Your task to perform on an android device: Who is the president of France? Image 0: 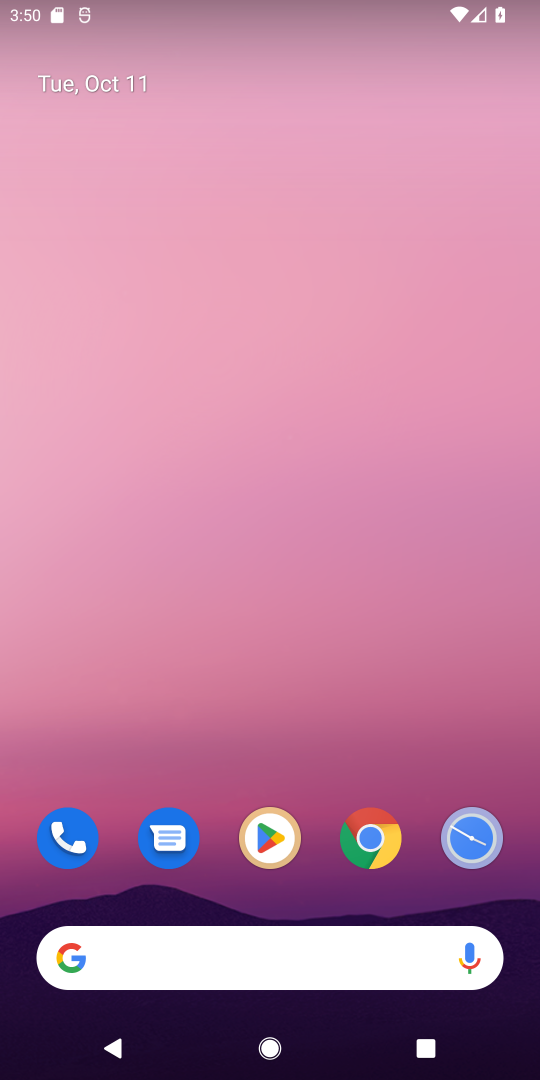
Step 0: click (370, 828)
Your task to perform on an android device: Who is the president of France? Image 1: 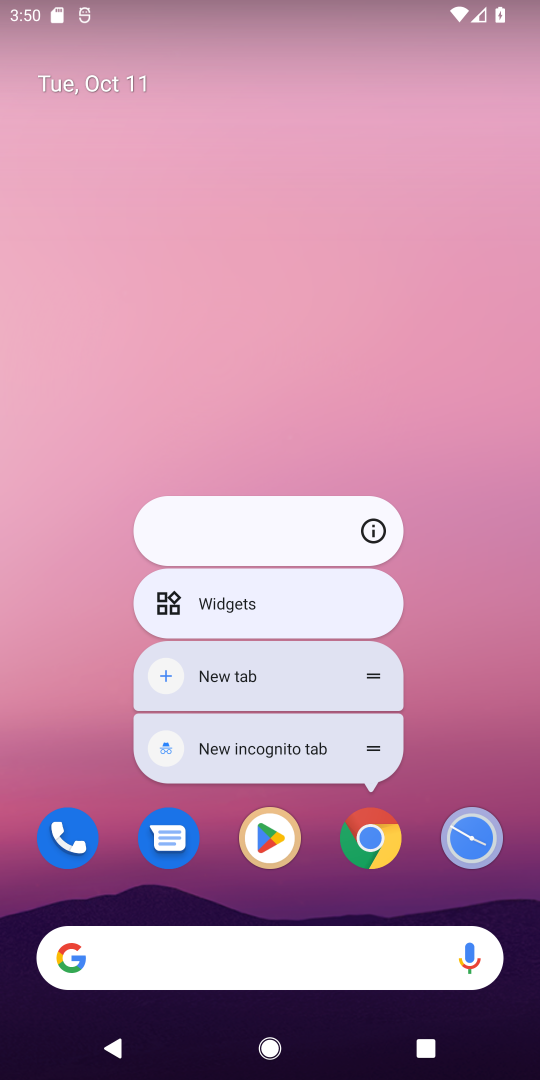
Step 1: click (356, 849)
Your task to perform on an android device: Who is the president of France? Image 2: 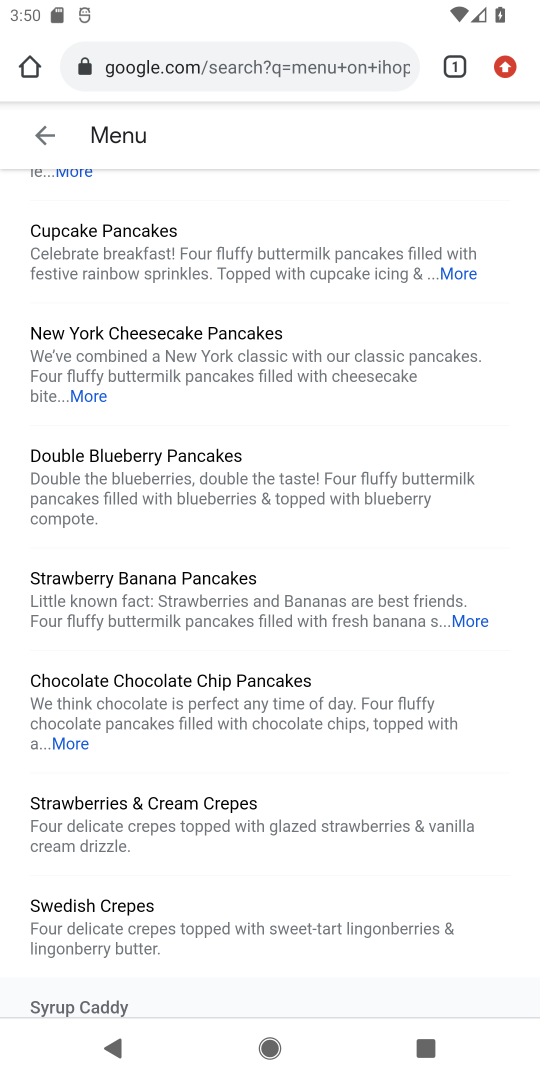
Step 2: click (156, 65)
Your task to perform on an android device: Who is the president of France? Image 3: 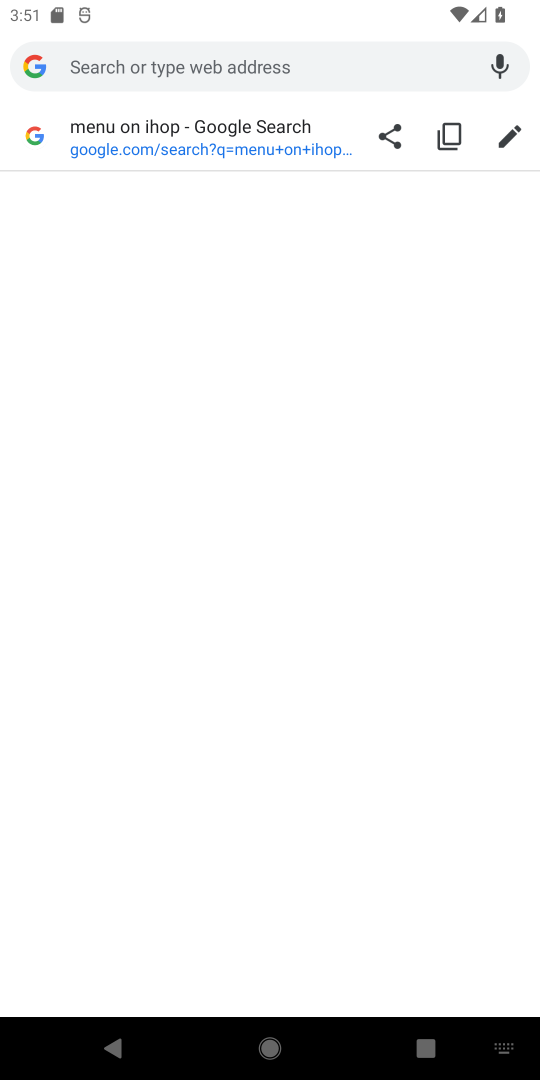
Step 3: type "president of france"
Your task to perform on an android device: Who is the president of France? Image 4: 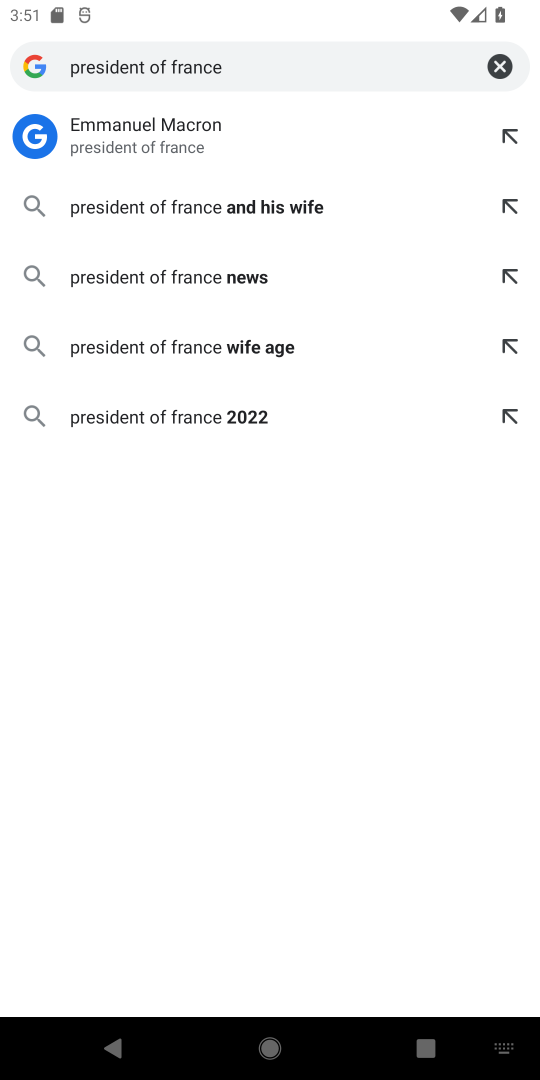
Step 4: click (175, 151)
Your task to perform on an android device: Who is the president of France? Image 5: 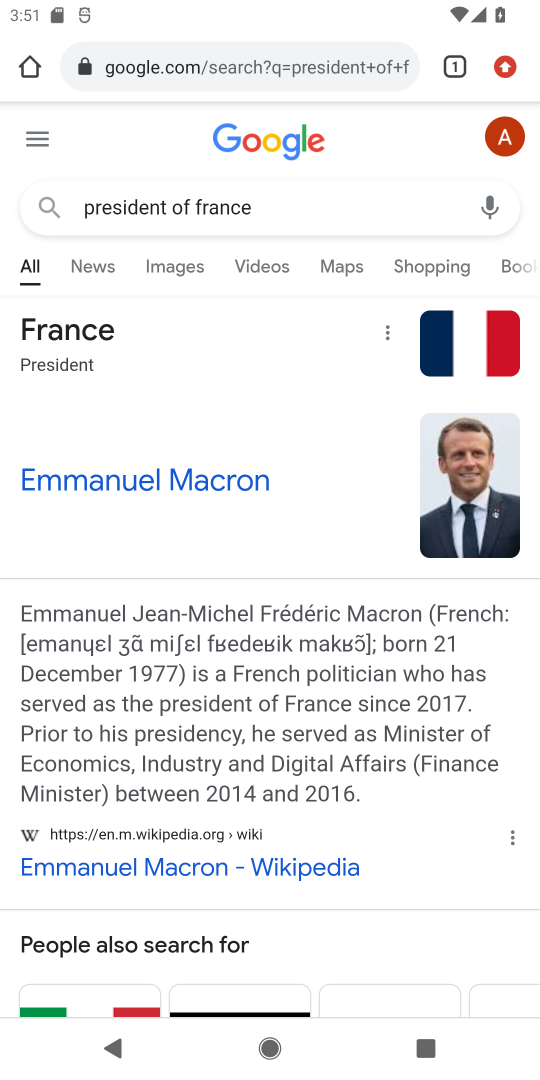
Step 5: task complete